Your task to perform on an android device: Show me popular games on the Play Store Image 0: 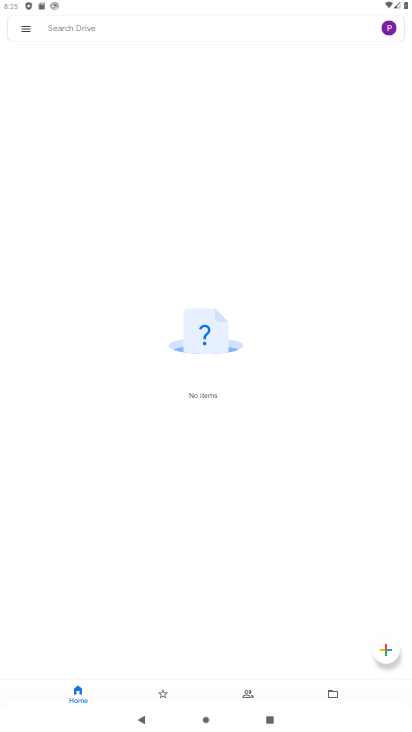
Step 0: press home button
Your task to perform on an android device: Show me popular games on the Play Store Image 1: 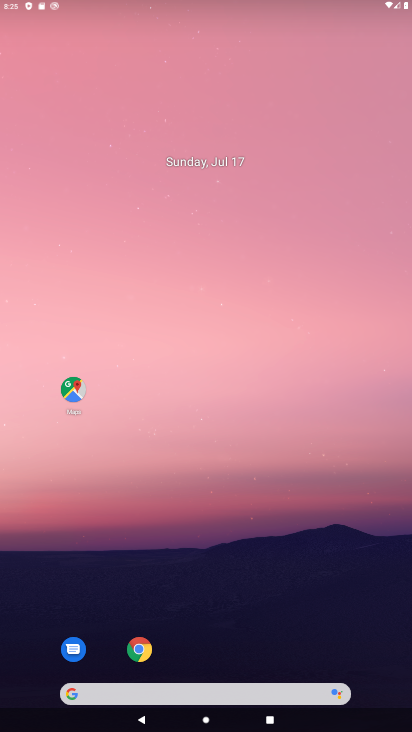
Step 1: drag from (206, 678) to (227, 143)
Your task to perform on an android device: Show me popular games on the Play Store Image 2: 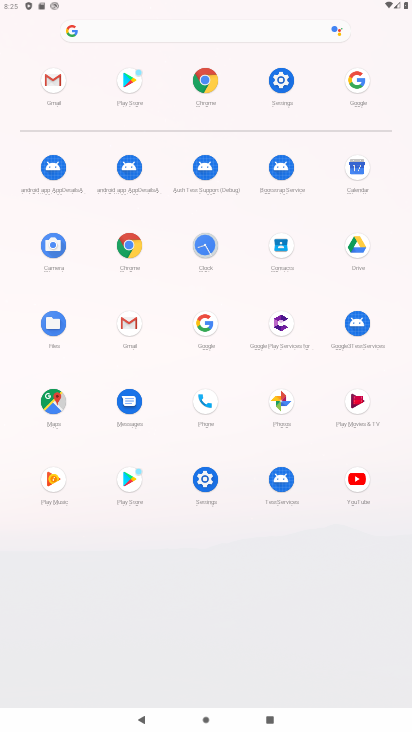
Step 2: click (133, 479)
Your task to perform on an android device: Show me popular games on the Play Store Image 3: 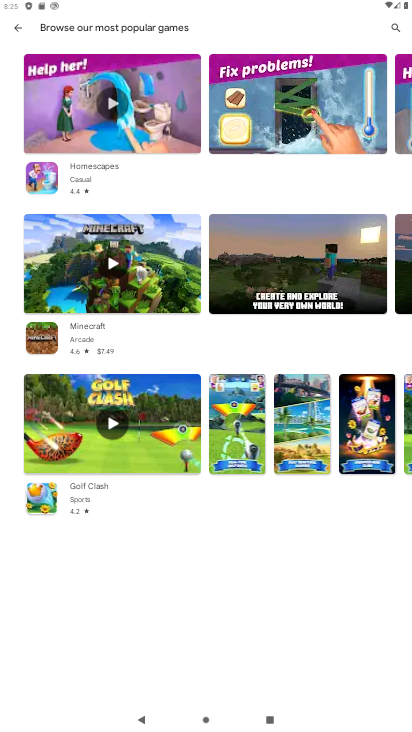
Step 3: task complete